Your task to perform on an android device: open wifi settings Image 0: 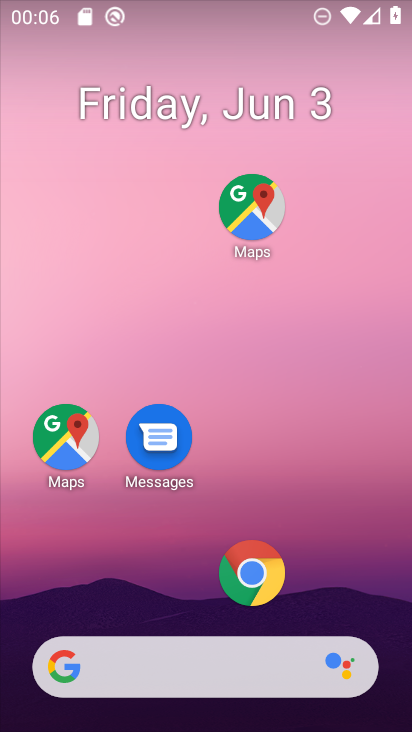
Step 0: drag from (320, 588) to (306, 106)
Your task to perform on an android device: open wifi settings Image 1: 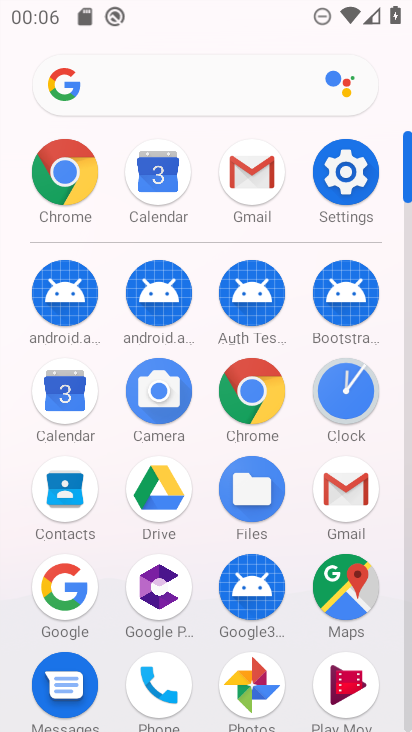
Step 1: click (351, 166)
Your task to perform on an android device: open wifi settings Image 2: 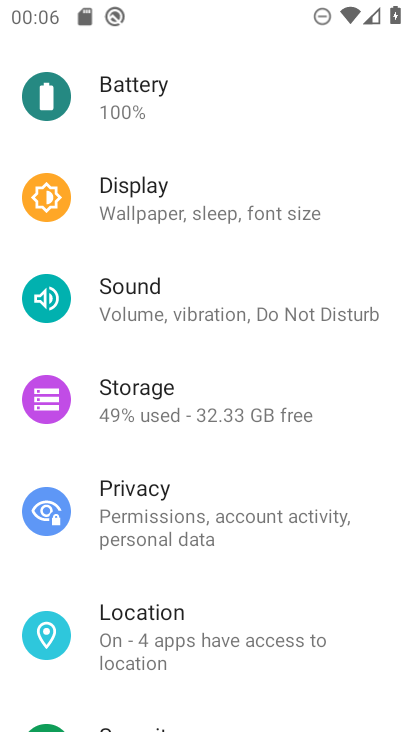
Step 2: drag from (265, 142) to (301, 512)
Your task to perform on an android device: open wifi settings Image 3: 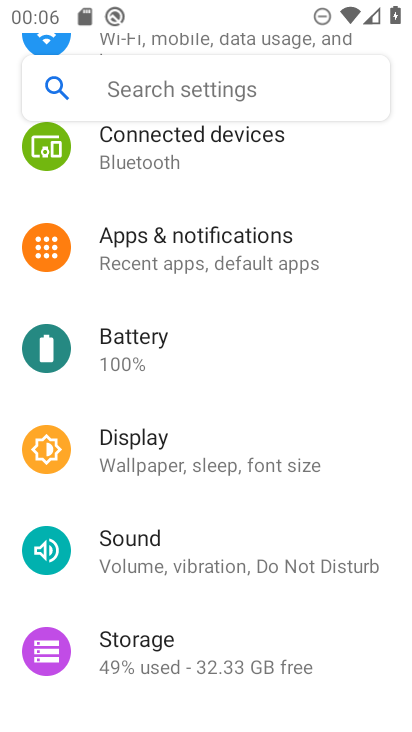
Step 3: drag from (233, 149) to (264, 496)
Your task to perform on an android device: open wifi settings Image 4: 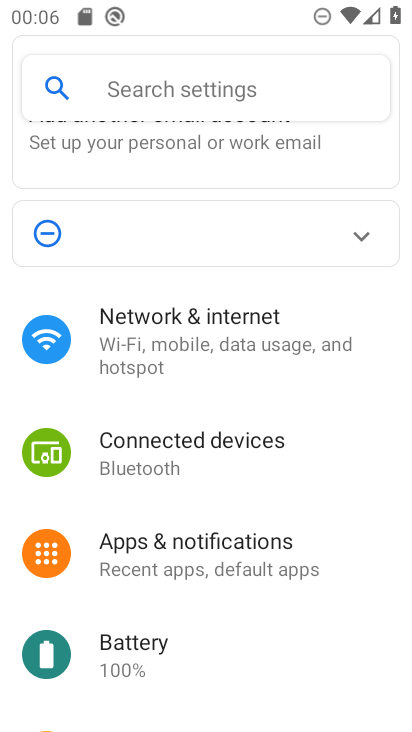
Step 4: click (223, 333)
Your task to perform on an android device: open wifi settings Image 5: 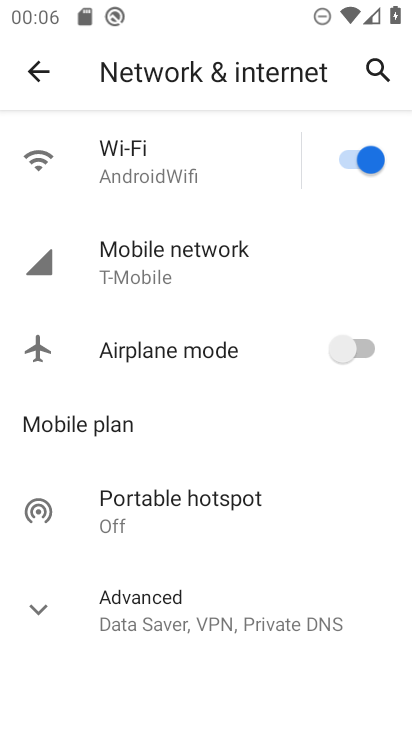
Step 5: click (161, 175)
Your task to perform on an android device: open wifi settings Image 6: 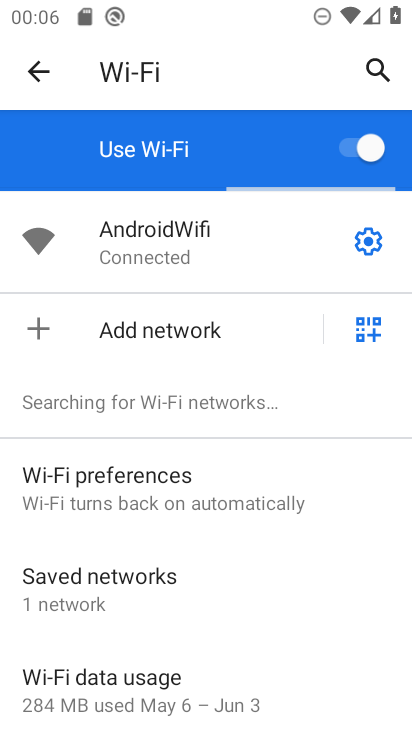
Step 6: task complete